Your task to perform on an android device: Open internet settings Image 0: 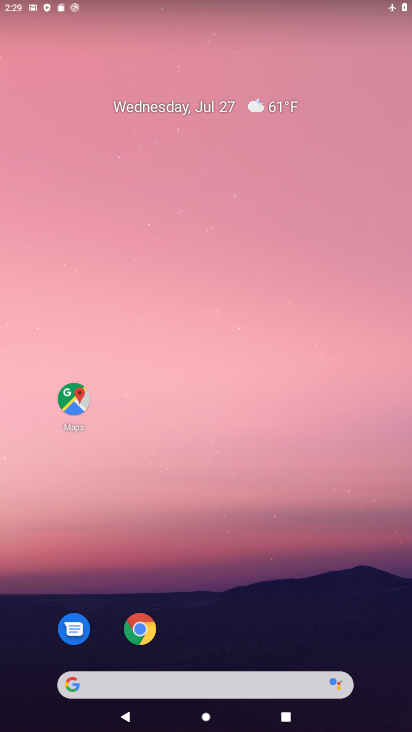
Step 0: drag from (293, 611) to (289, 388)
Your task to perform on an android device: Open internet settings Image 1: 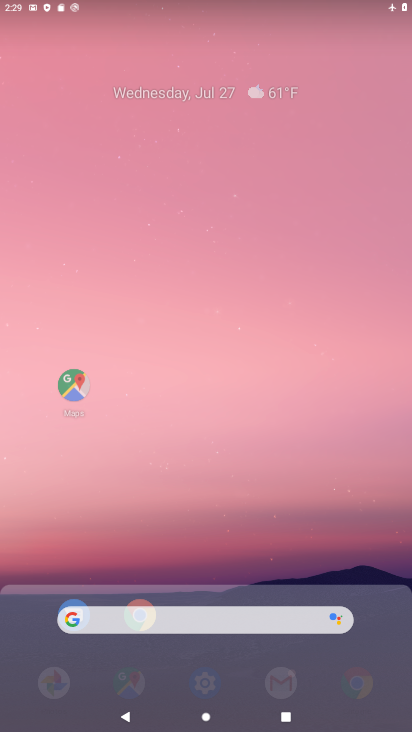
Step 1: click (314, 128)
Your task to perform on an android device: Open internet settings Image 2: 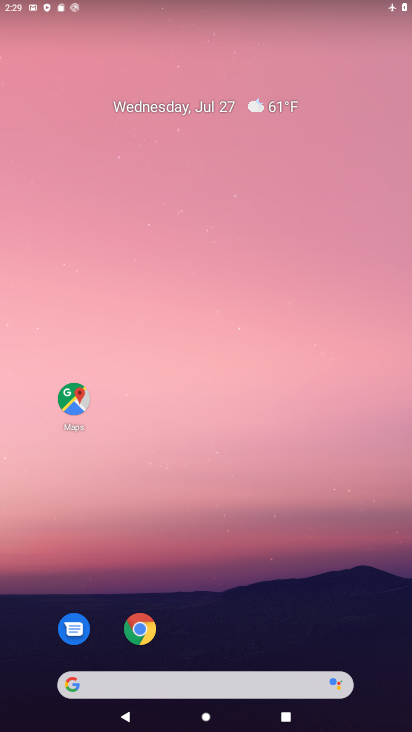
Step 2: drag from (191, 623) to (235, 172)
Your task to perform on an android device: Open internet settings Image 3: 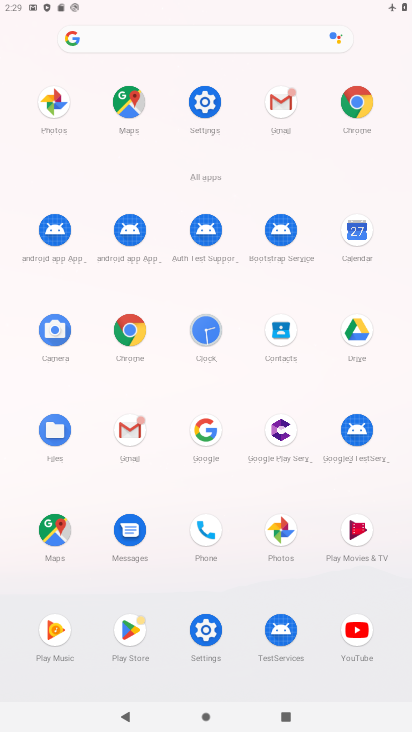
Step 3: click (208, 109)
Your task to perform on an android device: Open internet settings Image 4: 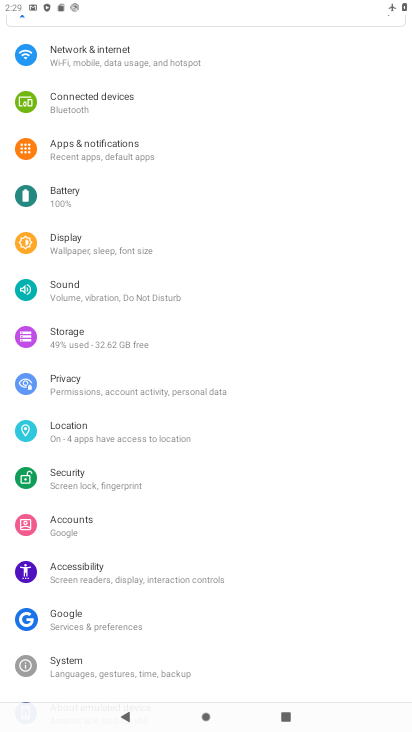
Step 4: click (82, 56)
Your task to perform on an android device: Open internet settings Image 5: 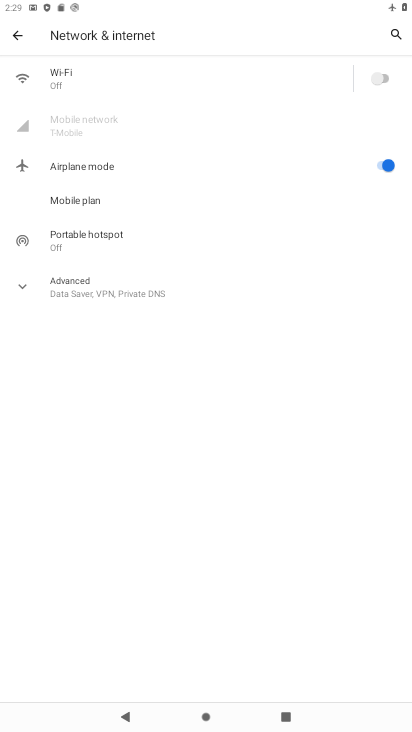
Step 5: task complete